Your task to perform on an android device: Search for pizza restaurants on Maps Image 0: 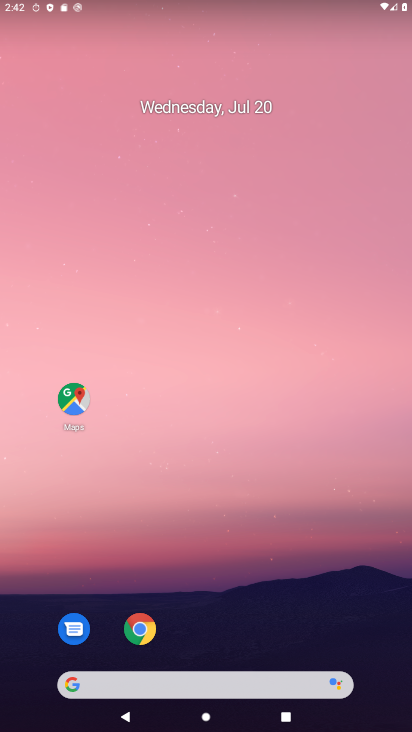
Step 0: press home button
Your task to perform on an android device: Search for pizza restaurants on Maps Image 1: 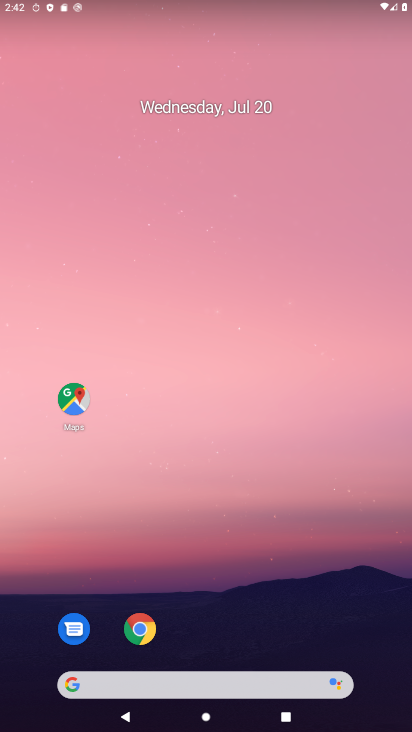
Step 1: click (70, 390)
Your task to perform on an android device: Search for pizza restaurants on Maps Image 2: 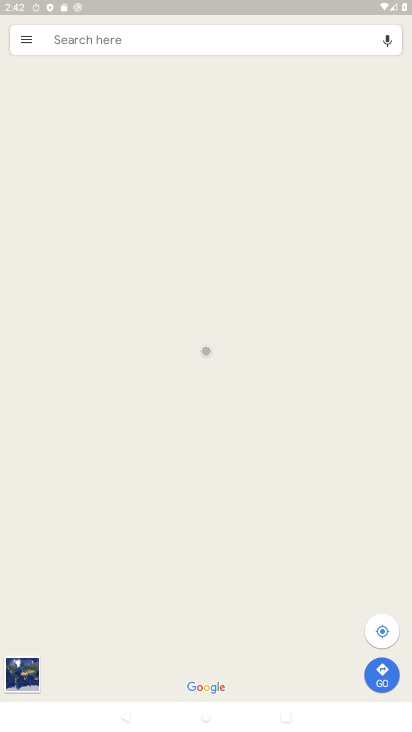
Step 2: click (81, 33)
Your task to perform on an android device: Search for pizza restaurants on Maps Image 3: 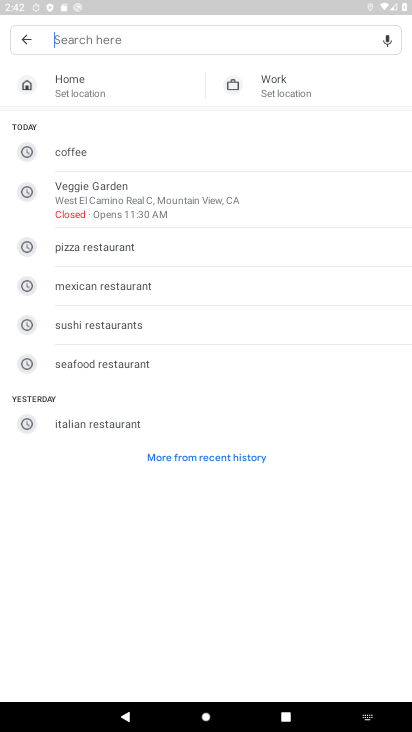
Step 3: type "pizza"
Your task to perform on an android device: Search for pizza restaurants on Maps Image 4: 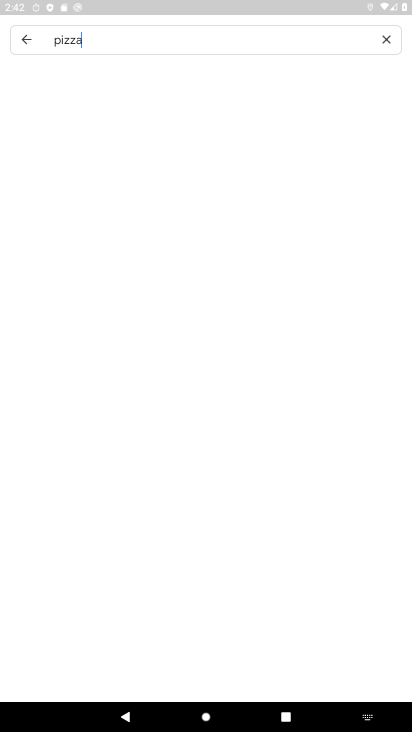
Step 4: type ""
Your task to perform on an android device: Search for pizza restaurants on Maps Image 5: 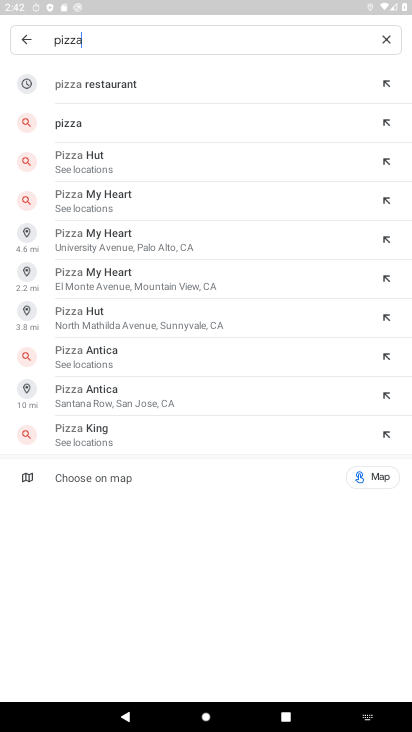
Step 5: click (132, 78)
Your task to perform on an android device: Search for pizza restaurants on Maps Image 6: 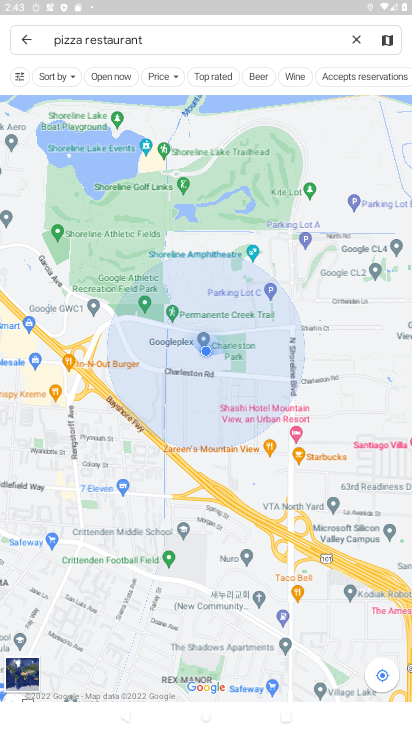
Step 6: task complete